Your task to perform on an android device: Open sound settings Image 0: 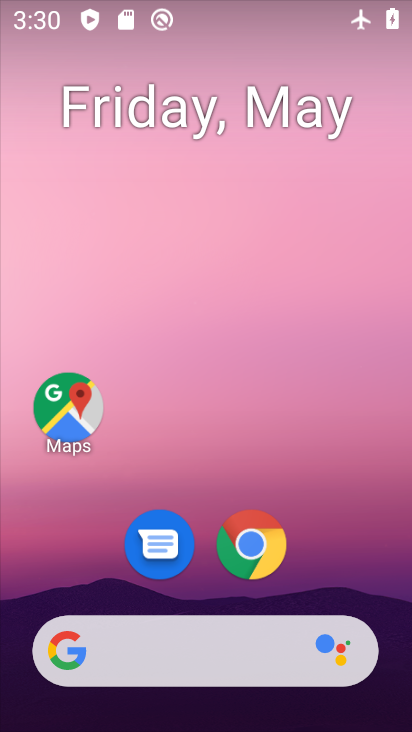
Step 0: drag from (343, 695) to (150, 81)
Your task to perform on an android device: Open sound settings Image 1: 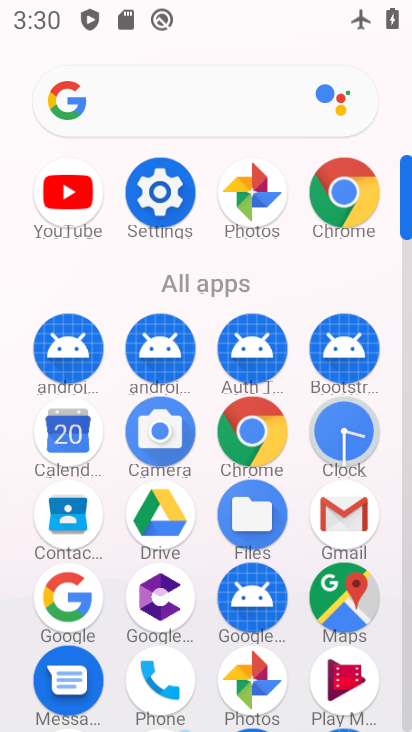
Step 1: click (158, 191)
Your task to perform on an android device: Open sound settings Image 2: 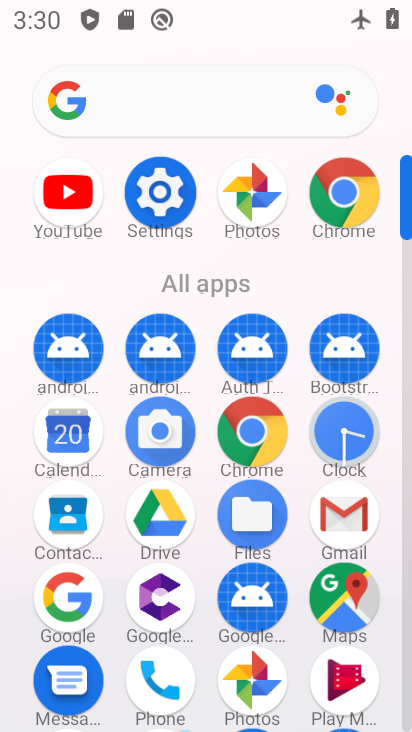
Step 2: click (159, 190)
Your task to perform on an android device: Open sound settings Image 3: 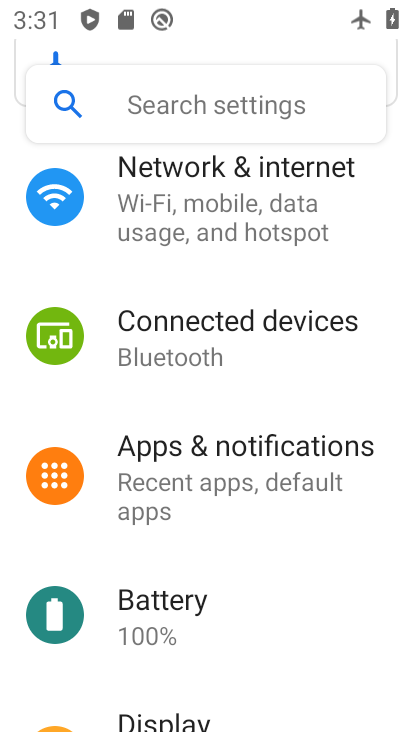
Step 3: drag from (209, 293) to (273, 689)
Your task to perform on an android device: Open sound settings Image 4: 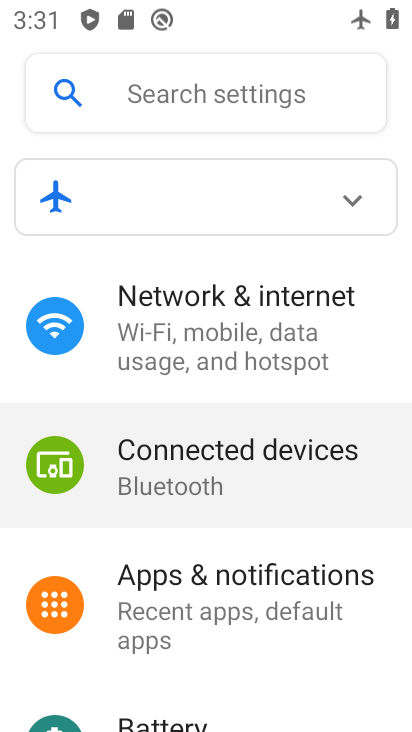
Step 4: drag from (266, 406) to (293, 647)
Your task to perform on an android device: Open sound settings Image 5: 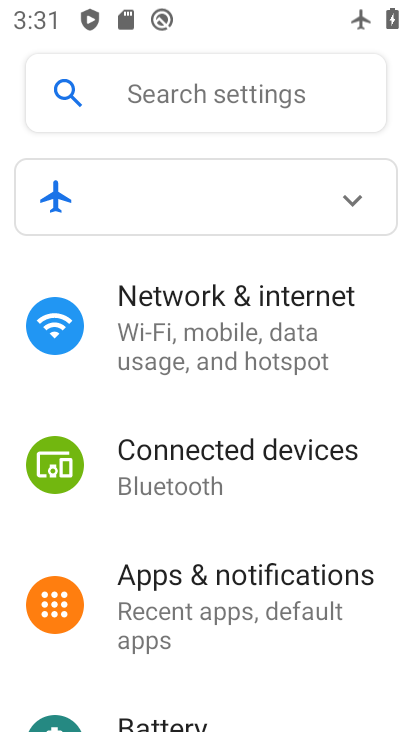
Step 5: drag from (208, 288) to (270, 676)
Your task to perform on an android device: Open sound settings Image 6: 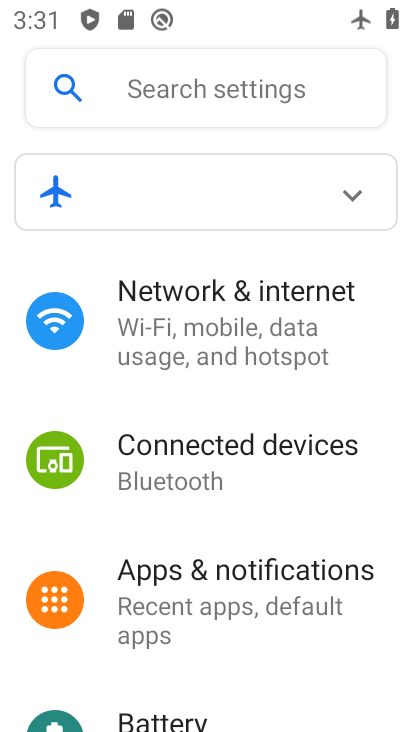
Step 6: drag from (182, 475) to (177, 221)
Your task to perform on an android device: Open sound settings Image 7: 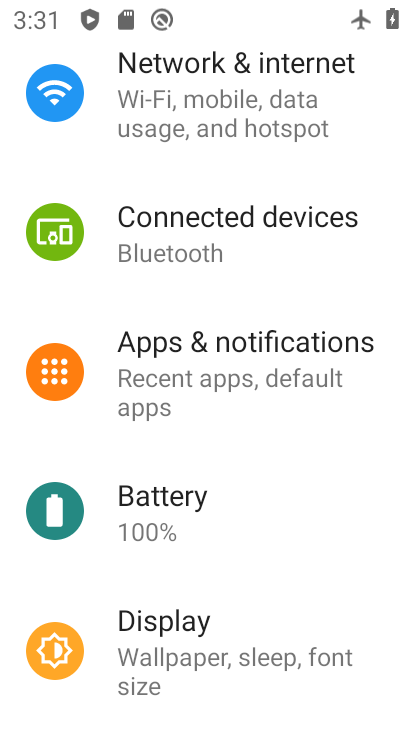
Step 7: drag from (218, 544) to (187, 151)
Your task to perform on an android device: Open sound settings Image 8: 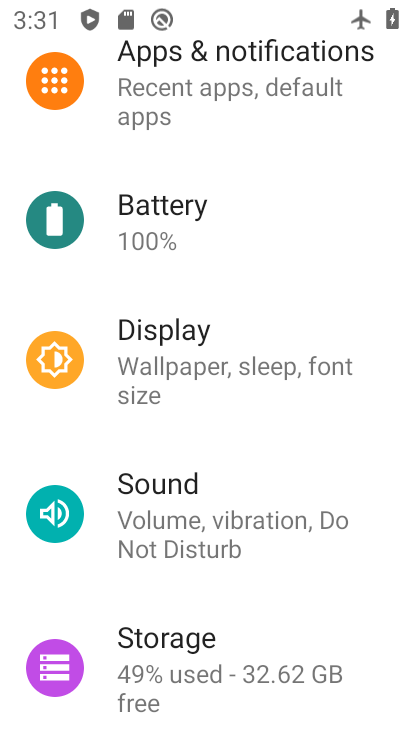
Step 8: drag from (206, 550) to (223, 225)
Your task to perform on an android device: Open sound settings Image 9: 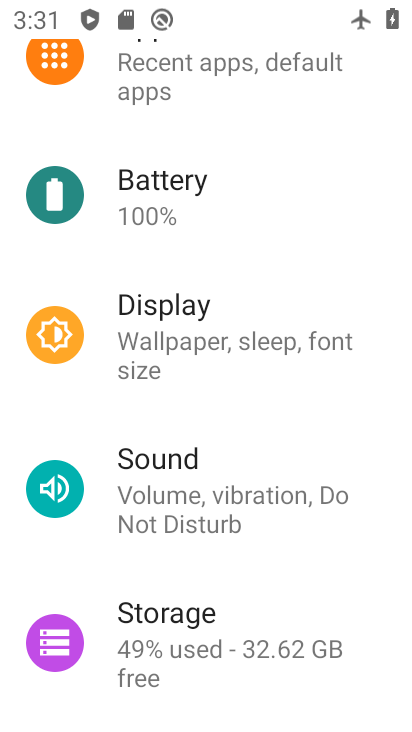
Step 9: drag from (231, 454) to (248, 109)
Your task to perform on an android device: Open sound settings Image 10: 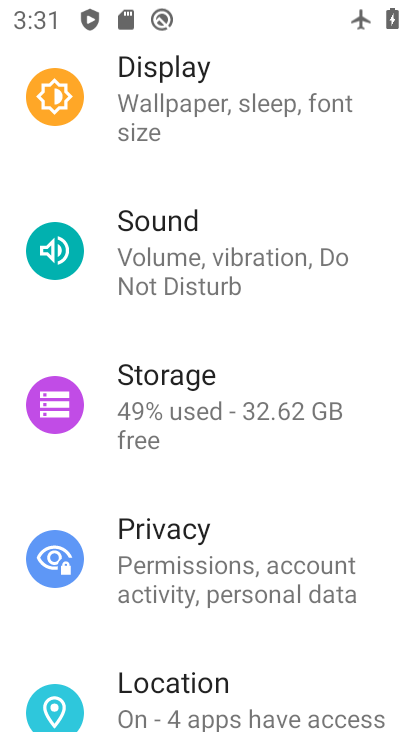
Step 10: drag from (253, 446) to (247, 319)
Your task to perform on an android device: Open sound settings Image 11: 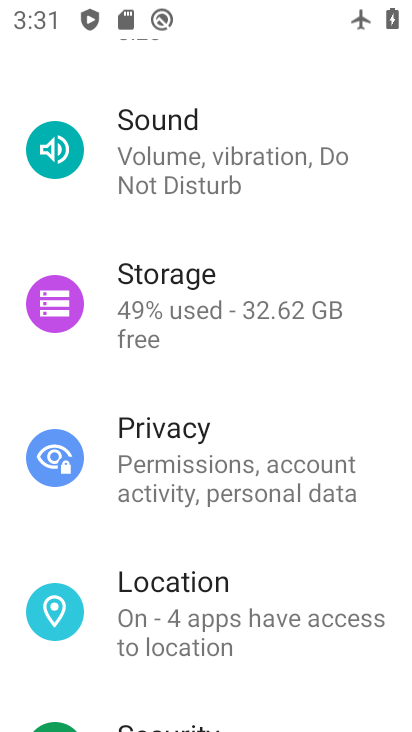
Step 11: drag from (147, 314) to (129, 248)
Your task to perform on an android device: Open sound settings Image 12: 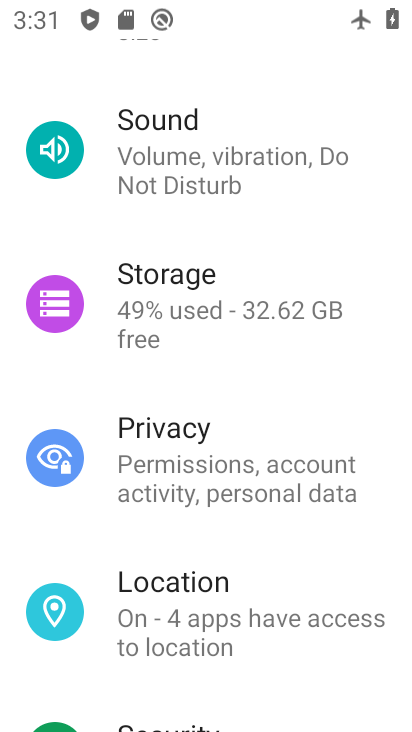
Step 12: click (174, 159)
Your task to perform on an android device: Open sound settings Image 13: 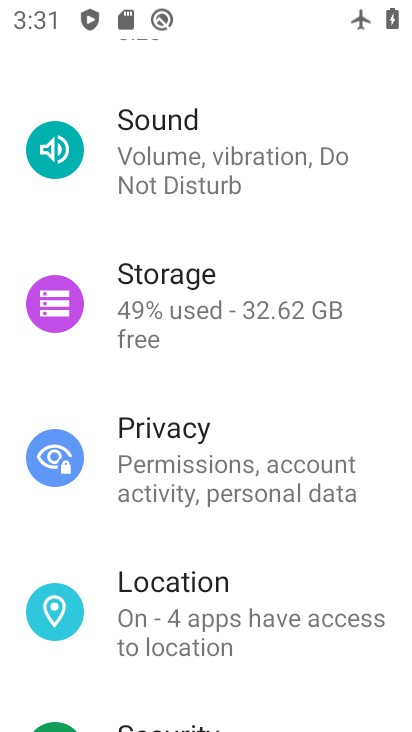
Step 13: click (169, 159)
Your task to perform on an android device: Open sound settings Image 14: 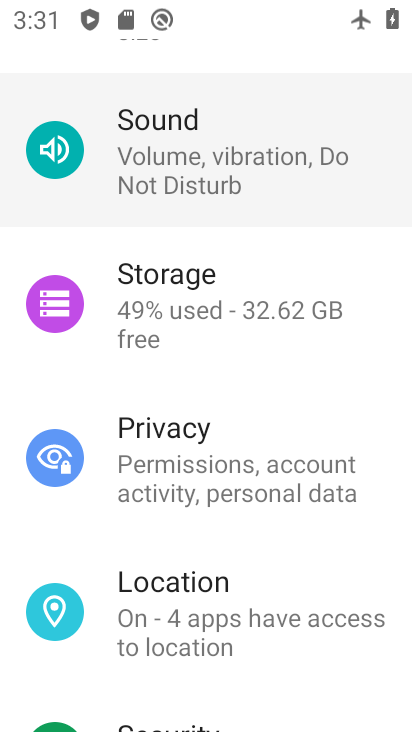
Step 14: click (166, 161)
Your task to perform on an android device: Open sound settings Image 15: 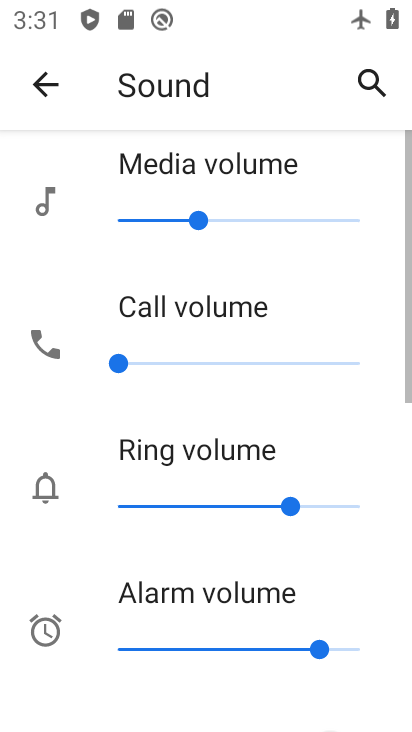
Step 15: click (174, 158)
Your task to perform on an android device: Open sound settings Image 16: 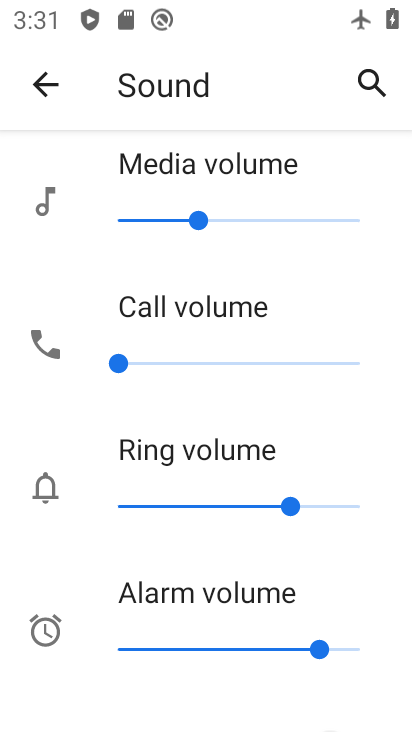
Step 16: task complete